Your task to perform on an android device: choose inbox layout in the gmail app Image 0: 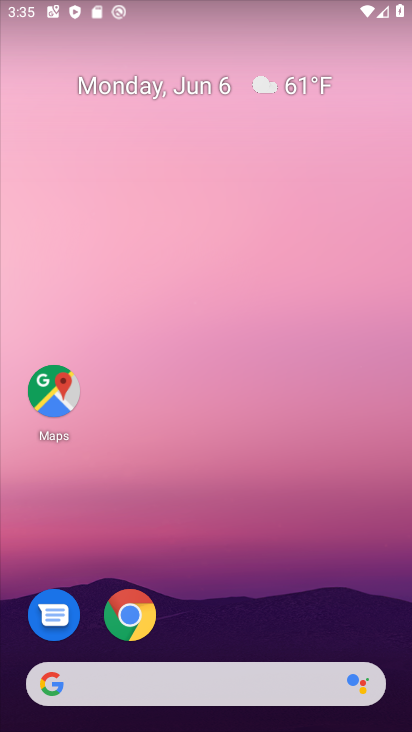
Step 0: click (56, 392)
Your task to perform on an android device: choose inbox layout in the gmail app Image 1: 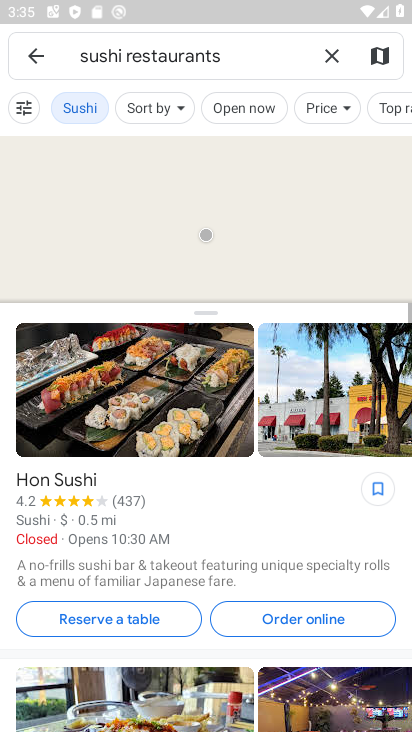
Step 1: press home button
Your task to perform on an android device: choose inbox layout in the gmail app Image 2: 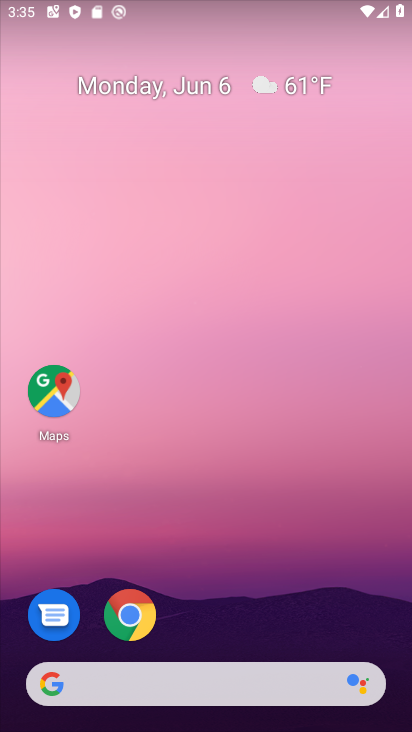
Step 2: drag from (366, 633) to (302, 147)
Your task to perform on an android device: choose inbox layout in the gmail app Image 3: 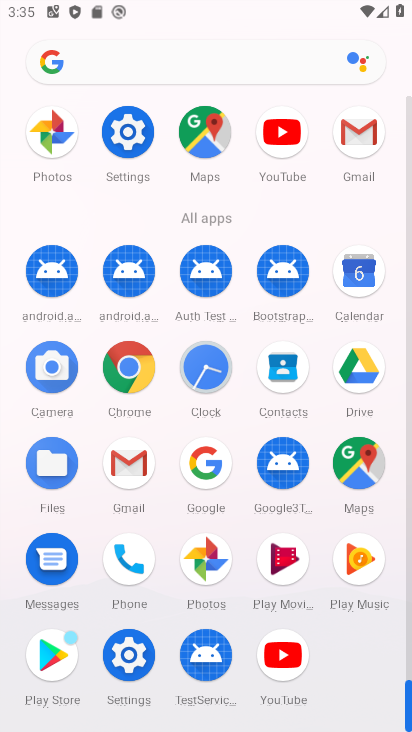
Step 3: click (127, 464)
Your task to perform on an android device: choose inbox layout in the gmail app Image 4: 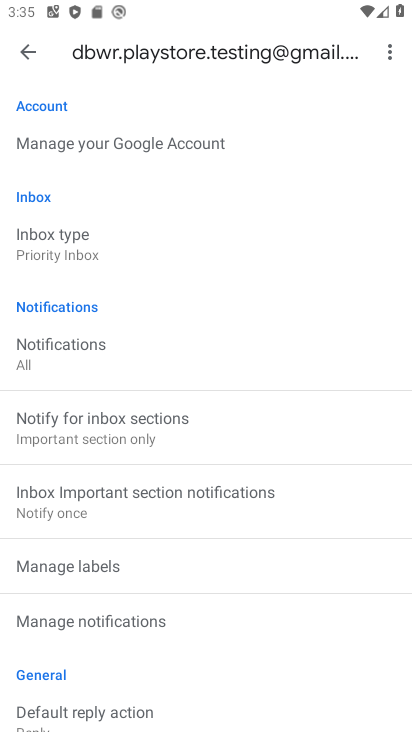
Step 4: click (41, 250)
Your task to perform on an android device: choose inbox layout in the gmail app Image 5: 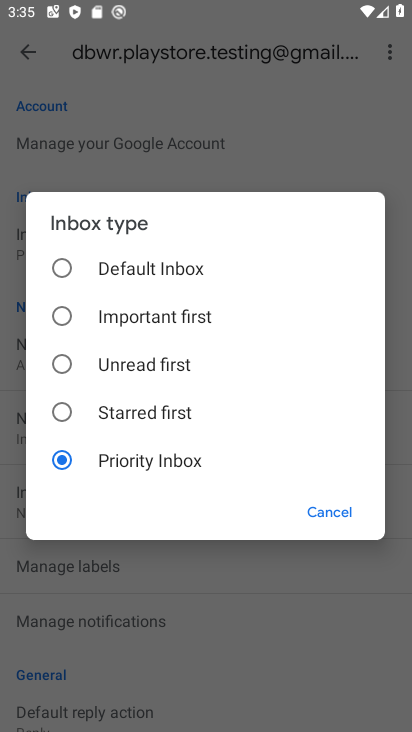
Step 5: click (63, 311)
Your task to perform on an android device: choose inbox layout in the gmail app Image 6: 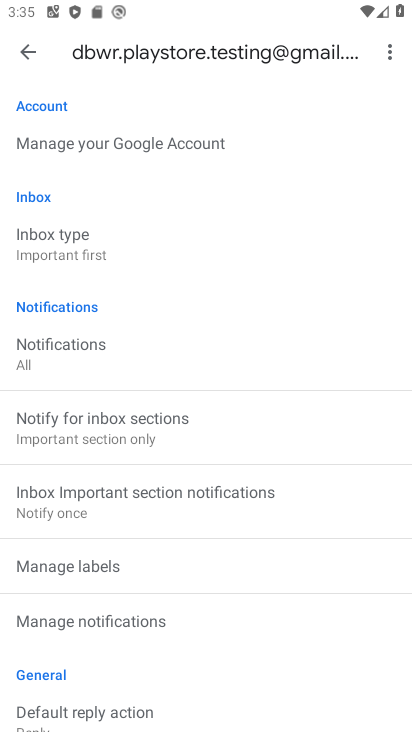
Step 6: task complete